Your task to perform on an android device: choose inbox layout in the gmail app Image 0: 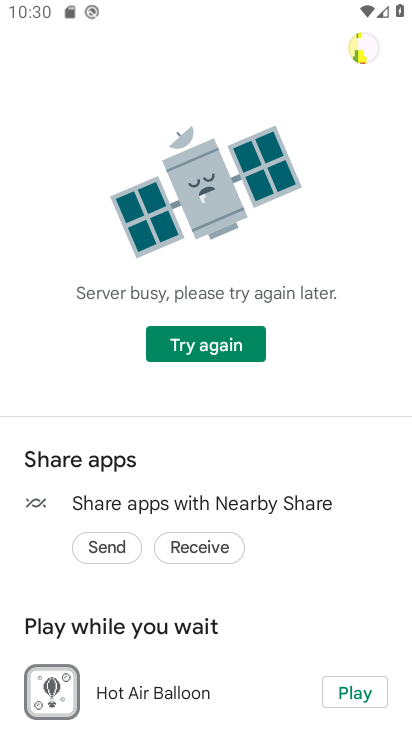
Step 0: press home button
Your task to perform on an android device: choose inbox layout in the gmail app Image 1: 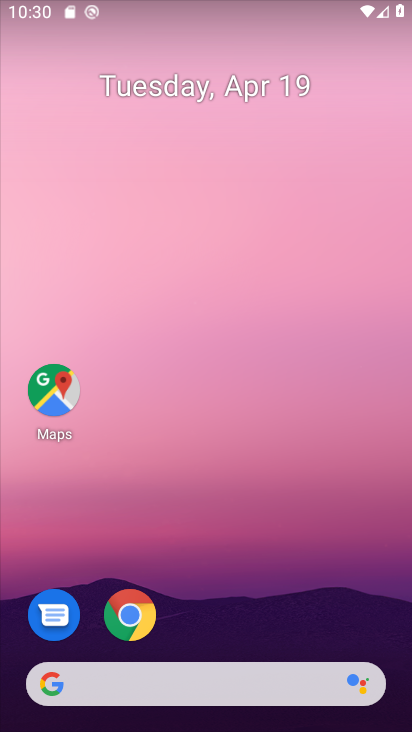
Step 1: drag from (229, 658) to (387, 95)
Your task to perform on an android device: choose inbox layout in the gmail app Image 2: 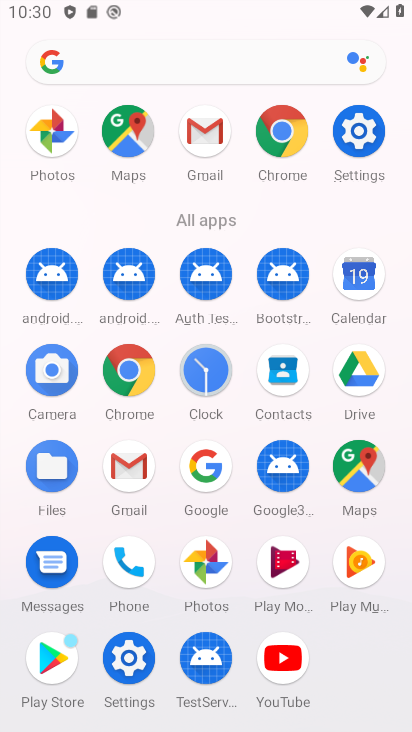
Step 2: click (207, 131)
Your task to perform on an android device: choose inbox layout in the gmail app Image 3: 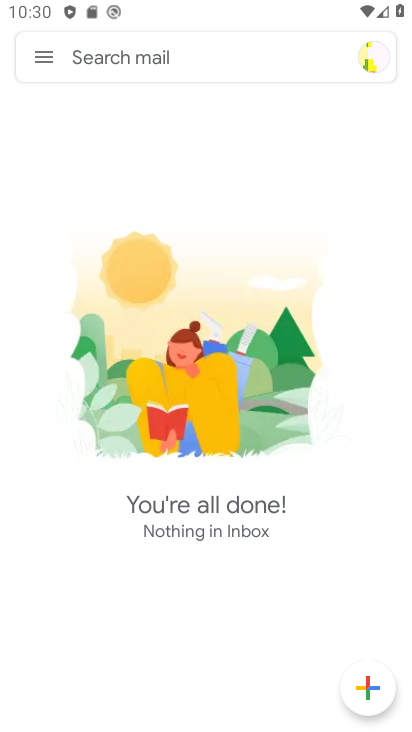
Step 3: click (50, 60)
Your task to perform on an android device: choose inbox layout in the gmail app Image 4: 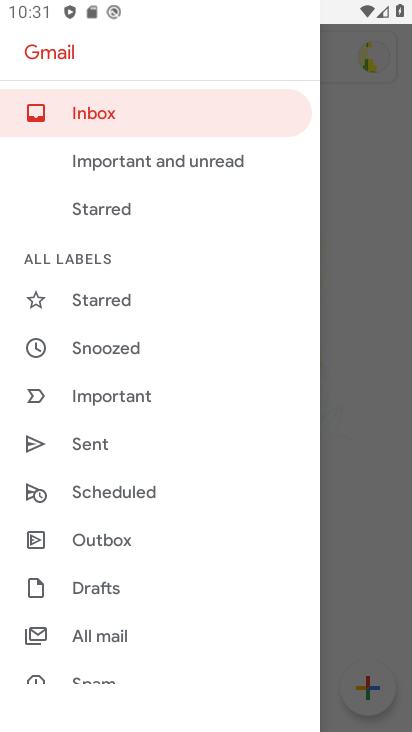
Step 4: drag from (103, 617) to (212, 234)
Your task to perform on an android device: choose inbox layout in the gmail app Image 5: 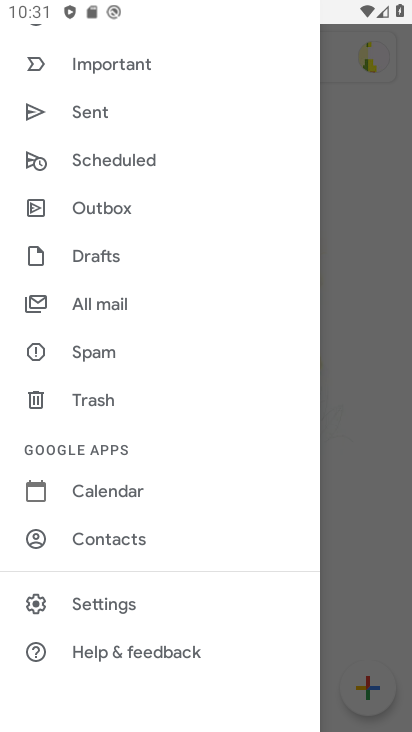
Step 5: click (102, 606)
Your task to perform on an android device: choose inbox layout in the gmail app Image 6: 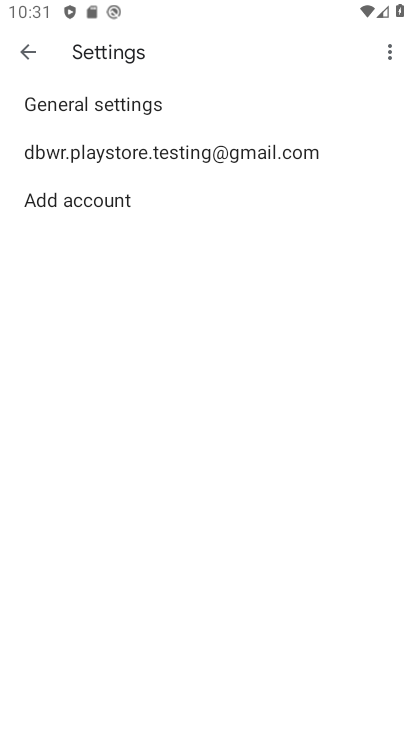
Step 6: click (244, 150)
Your task to perform on an android device: choose inbox layout in the gmail app Image 7: 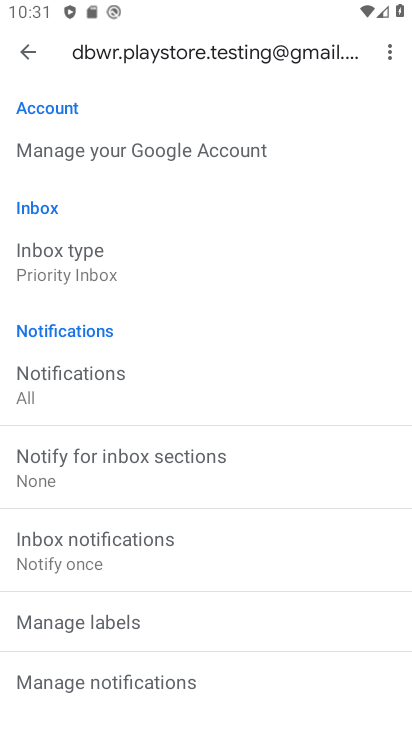
Step 7: click (85, 267)
Your task to perform on an android device: choose inbox layout in the gmail app Image 8: 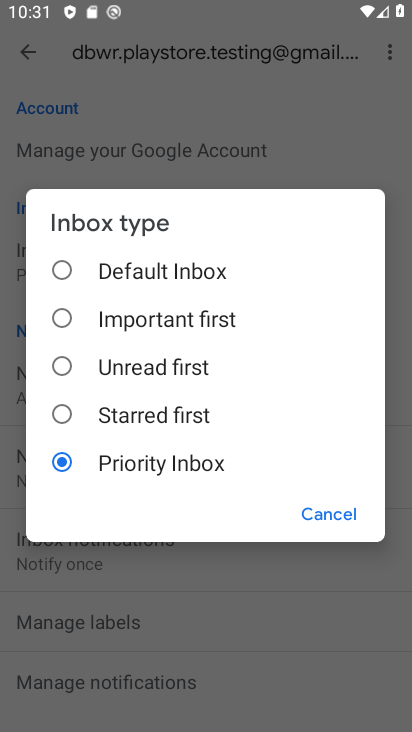
Step 8: task complete